Your task to perform on an android device: turn off location history Image 0: 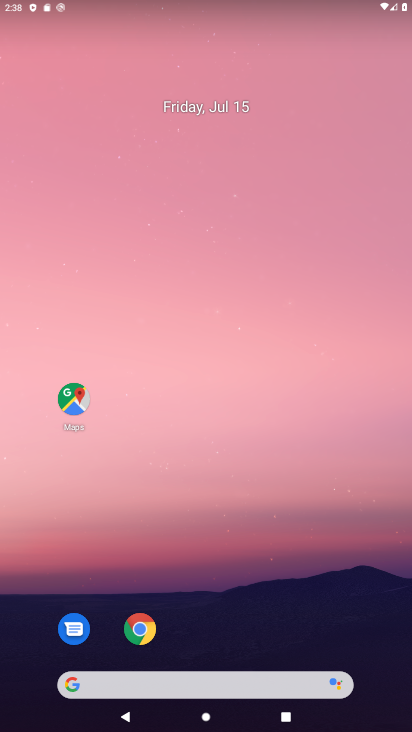
Step 0: drag from (214, 634) to (92, 131)
Your task to perform on an android device: turn off location history Image 1: 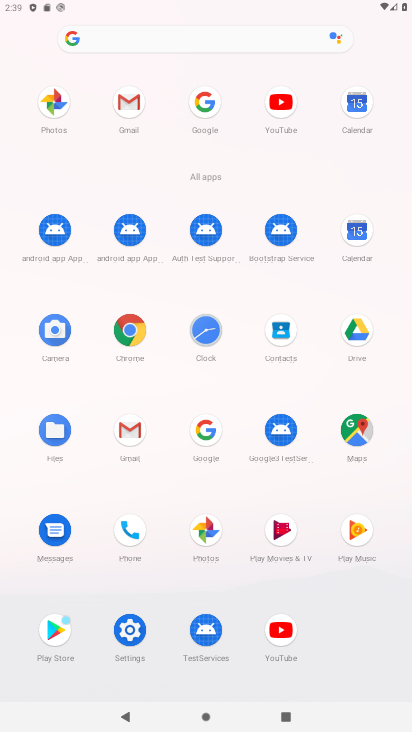
Step 1: click (116, 626)
Your task to perform on an android device: turn off location history Image 2: 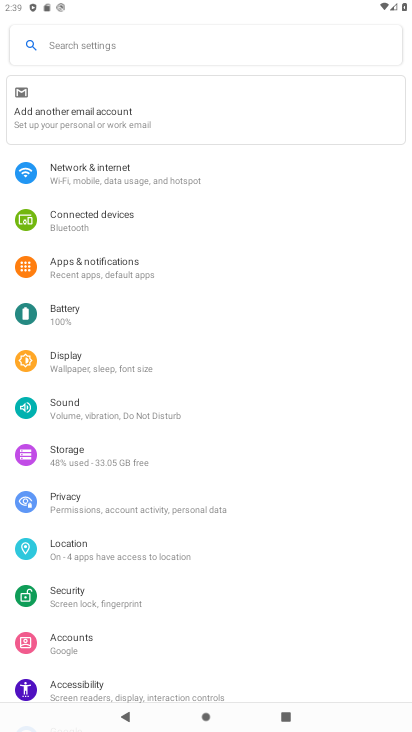
Step 2: click (82, 555)
Your task to perform on an android device: turn off location history Image 3: 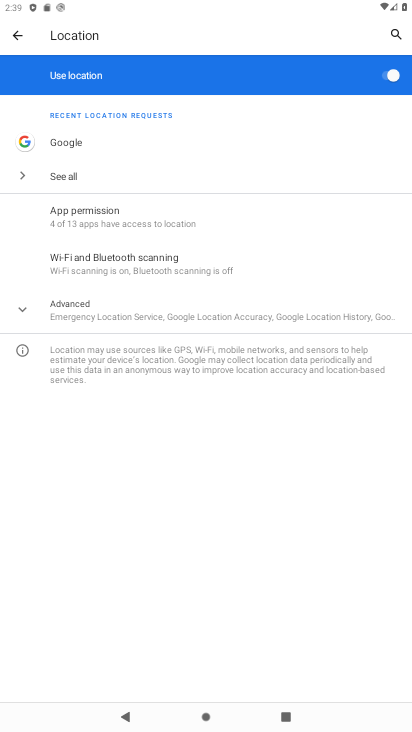
Step 3: click (97, 303)
Your task to perform on an android device: turn off location history Image 4: 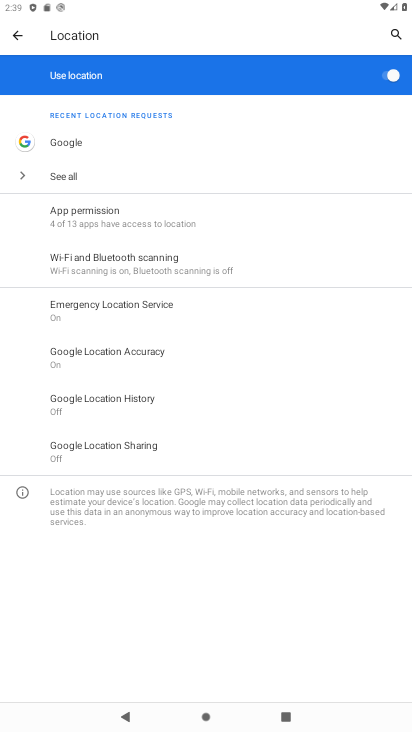
Step 4: click (145, 396)
Your task to perform on an android device: turn off location history Image 5: 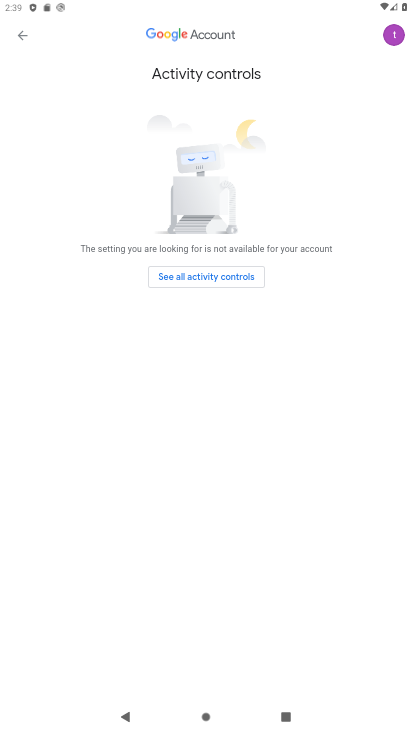
Step 5: click (29, 34)
Your task to perform on an android device: turn off location history Image 6: 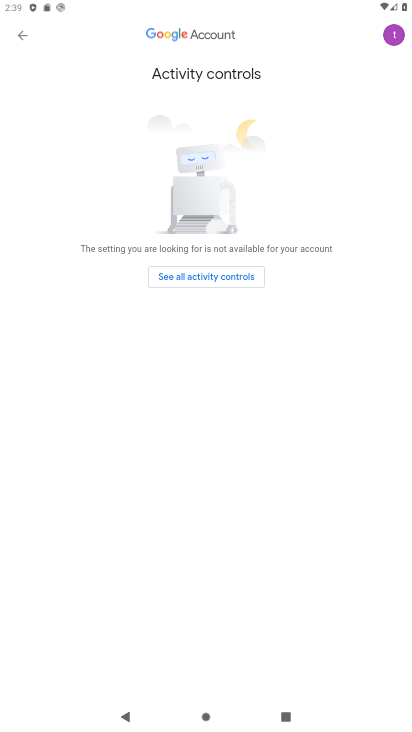
Step 6: click (223, 266)
Your task to perform on an android device: turn off location history Image 7: 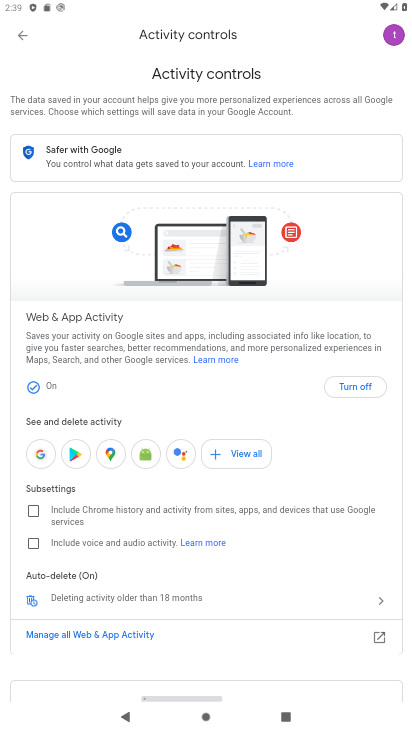
Step 7: drag from (271, 572) to (245, 345)
Your task to perform on an android device: turn off location history Image 8: 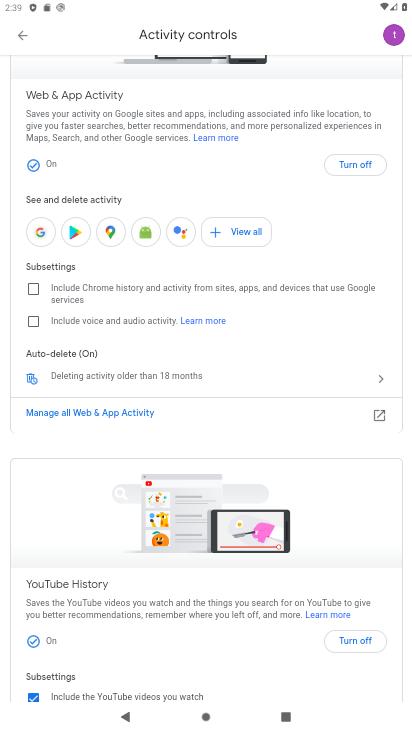
Step 8: click (351, 164)
Your task to perform on an android device: turn off location history Image 9: 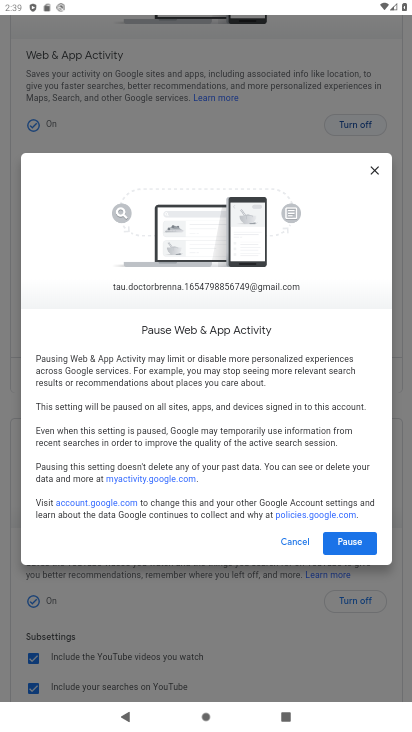
Step 9: drag from (310, 454) to (271, 131)
Your task to perform on an android device: turn off location history Image 10: 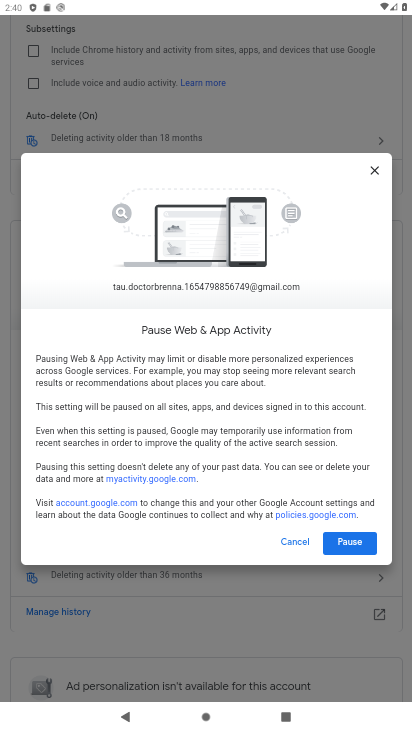
Step 10: click (361, 540)
Your task to perform on an android device: turn off location history Image 11: 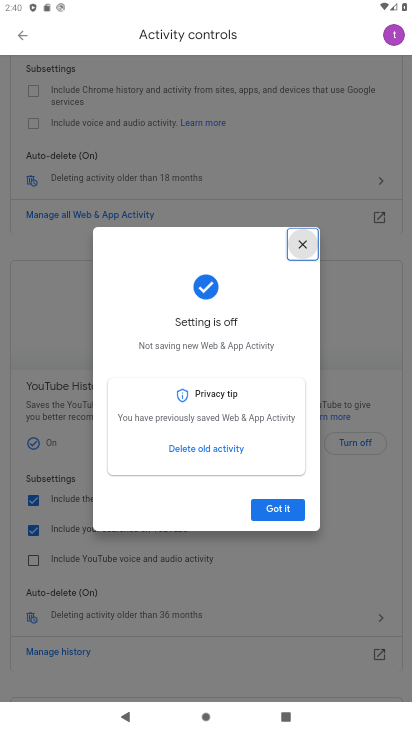
Step 11: click (288, 500)
Your task to perform on an android device: turn off location history Image 12: 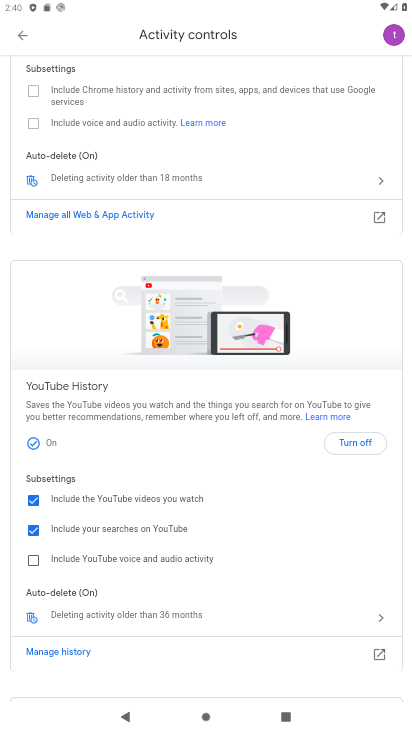
Step 12: task complete